Your task to perform on an android device: Open my contact list Image 0: 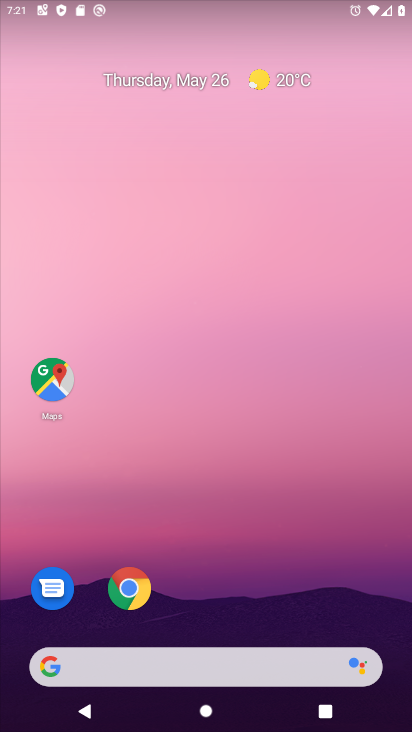
Step 0: drag from (394, 620) to (283, 89)
Your task to perform on an android device: Open my contact list Image 1: 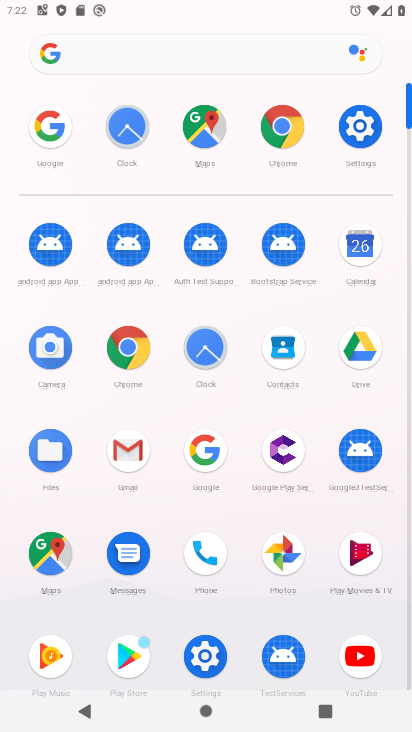
Step 1: click (271, 360)
Your task to perform on an android device: Open my contact list Image 2: 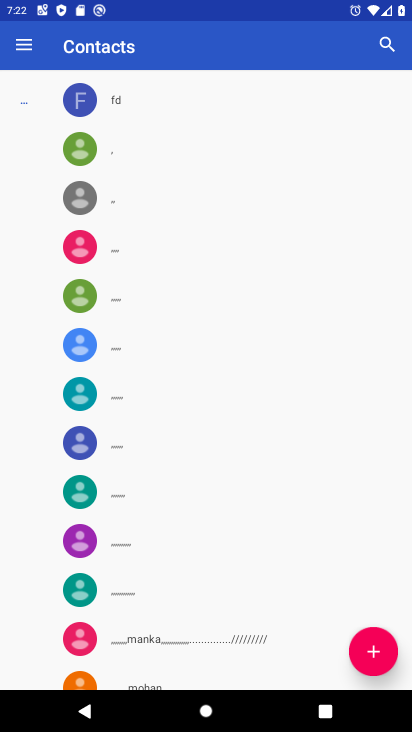
Step 2: task complete